Your task to perform on an android device: change keyboard looks Image 0: 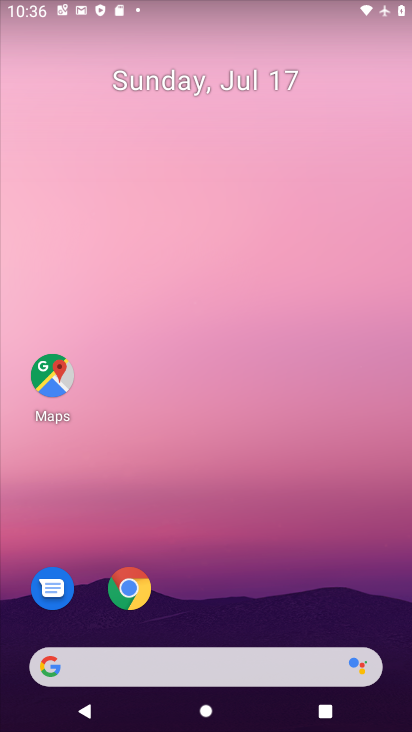
Step 0: press home button
Your task to perform on an android device: change keyboard looks Image 1: 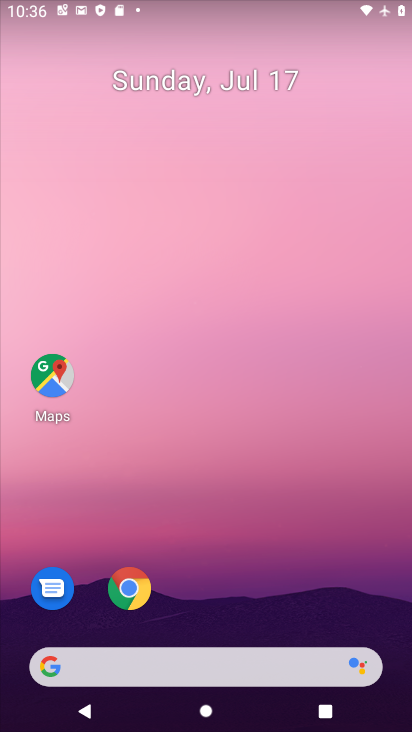
Step 1: drag from (219, 694) to (223, 20)
Your task to perform on an android device: change keyboard looks Image 2: 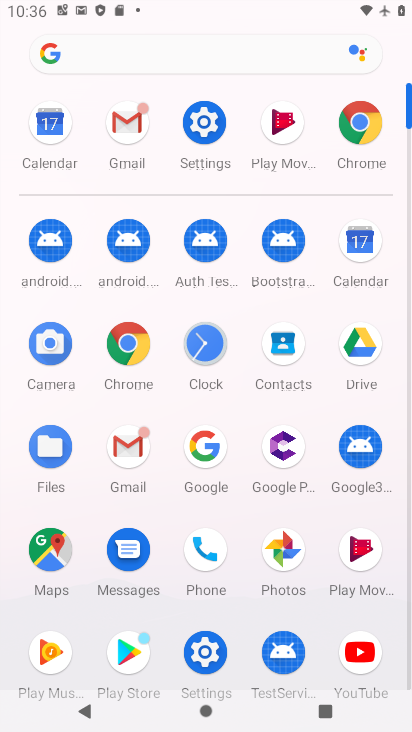
Step 2: click (217, 659)
Your task to perform on an android device: change keyboard looks Image 3: 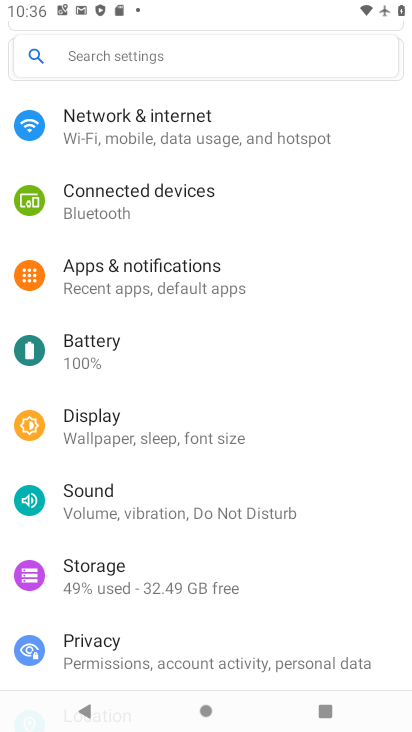
Step 3: drag from (161, 521) to (168, 138)
Your task to perform on an android device: change keyboard looks Image 4: 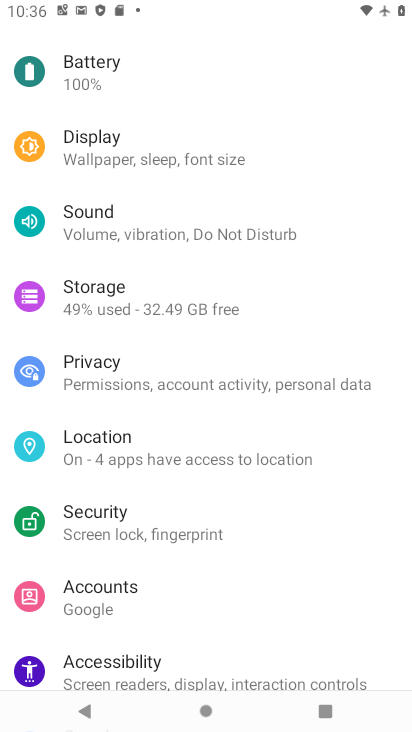
Step 4: drag from (139, 620) to (139, 283)
Your task to perform on an android device: change keyboard looks Image 5: 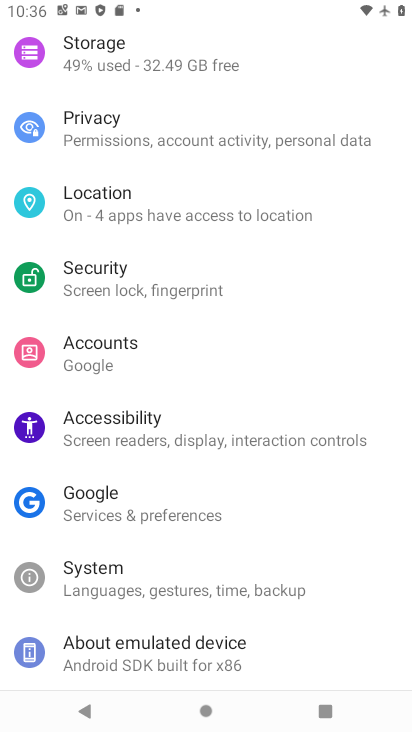
Step 5: drag from (135, 624) to (139, 225)
Your task to perform on an android device: change keyboard looks Image 6: 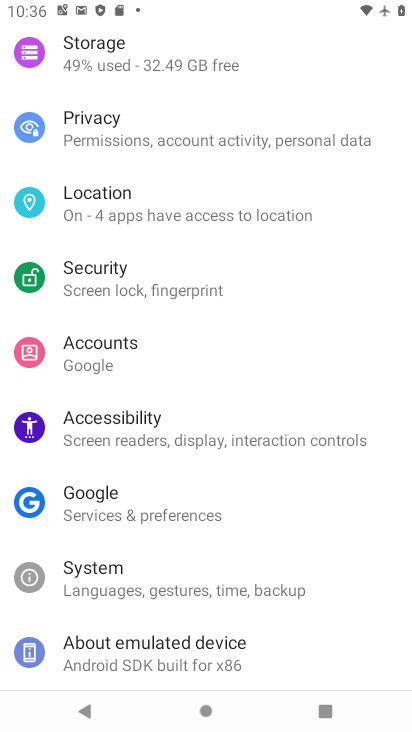
Step 6: click (133, 658)
Your task to perform on an android device: change keyboard looks Image 7: 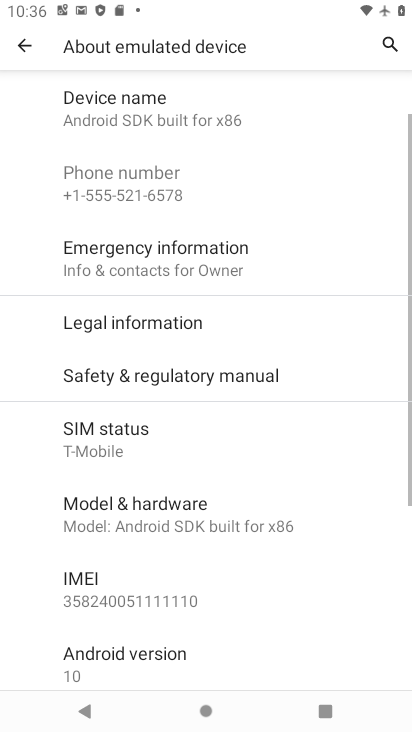
Step 7: drag from (133, 643) to (148, 402)
Your task to perform on an android device: change keyboard looks Image 8: 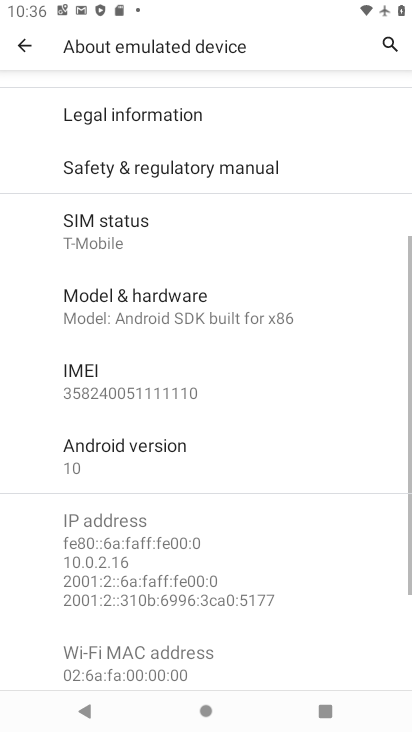
Step 8: click (107, 455)
Your task to perform on an android device: change keyboard looks Image 9: 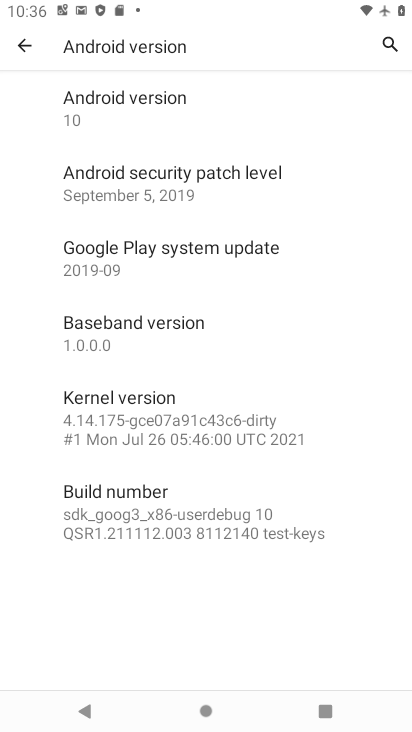
Step 9: click (26, 44)
Your task to perform on an android device: change keyboard looks Image 10: 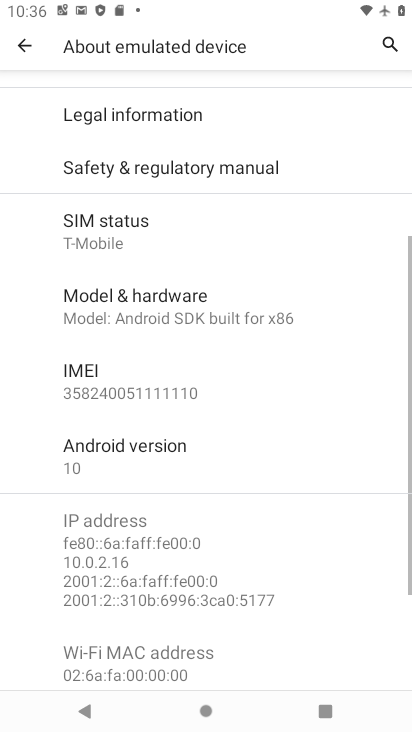
Step 10: drag from (128, 630) to (167, 380)
Your task to perform on an android device: change keyboard looks Image 11: 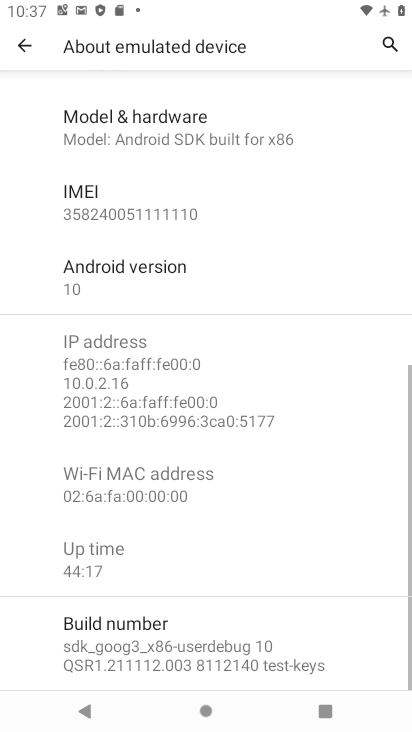
Step 11: click (31, 57)
Your task to perform on an android device: change keyboard looks Image 12: 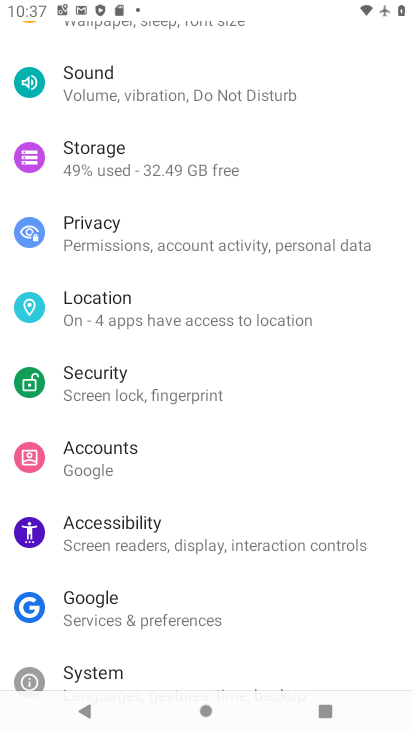
Step 12: drag from (103, 648) to (107, 524)
Your task to perform on an android device: change keyboard looks Image 13: 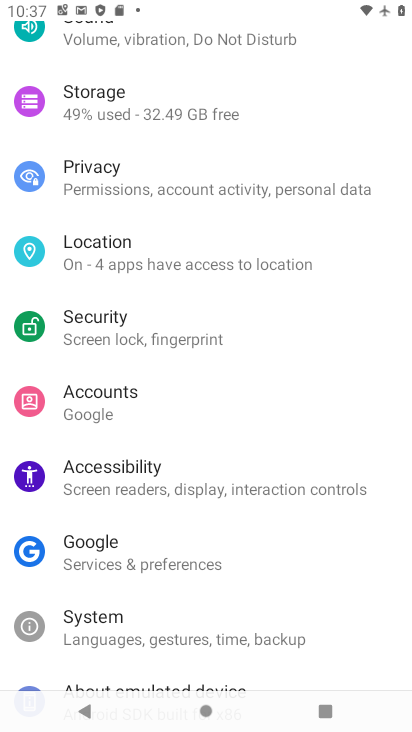
Step 13: click (105, 613)
Your task to perform on an android device: change keyboard looks Image 14: 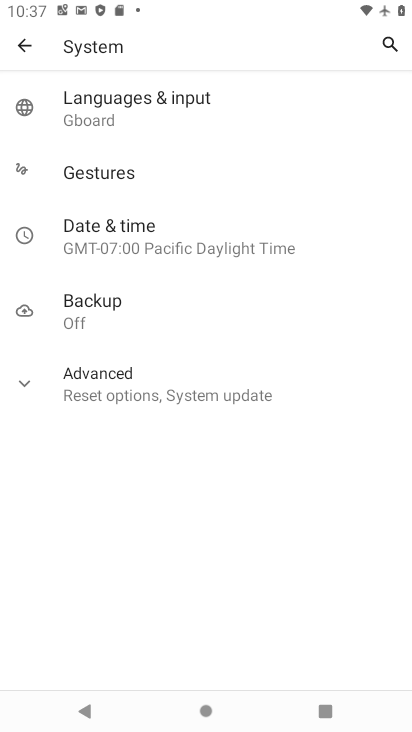
Step 14: task complete